Your task to perform on an android device: turn off translation in the chrome app Image 0: 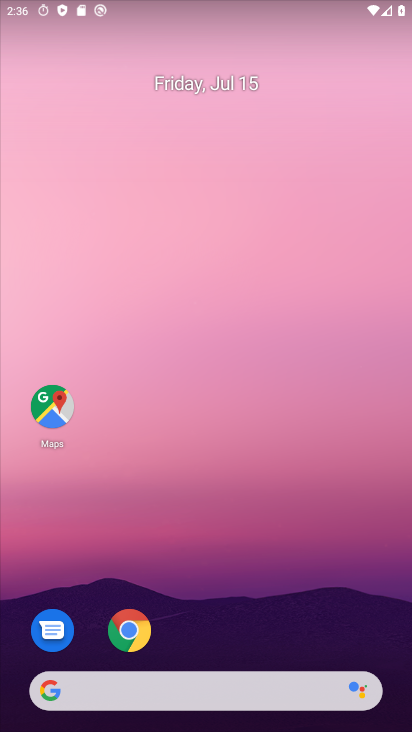
Step 0: click (121, 629)
Your task to perform on an android device: turn off translation in the chrome app Image 1: 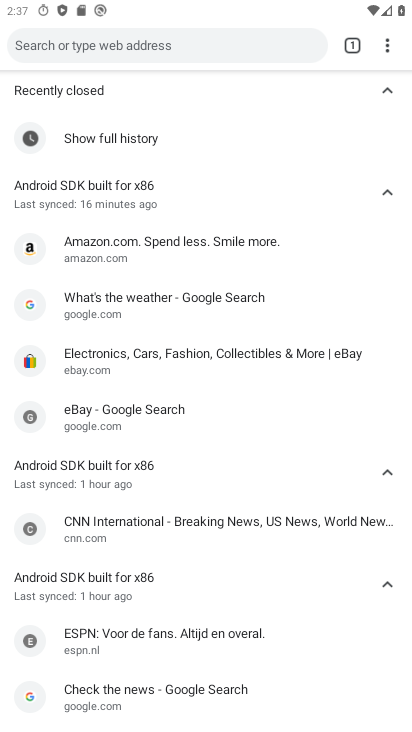
Step 1: click (389, 44)
Your task to perform on an android device: turn off translation in the chrome app Image 2: 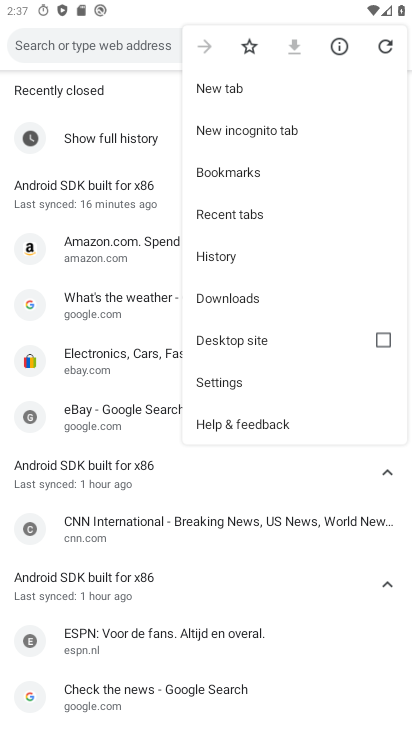
Step 2: click (246, 373)
Your task to perform on an android device: turn off translation in the chrome app Image 3: 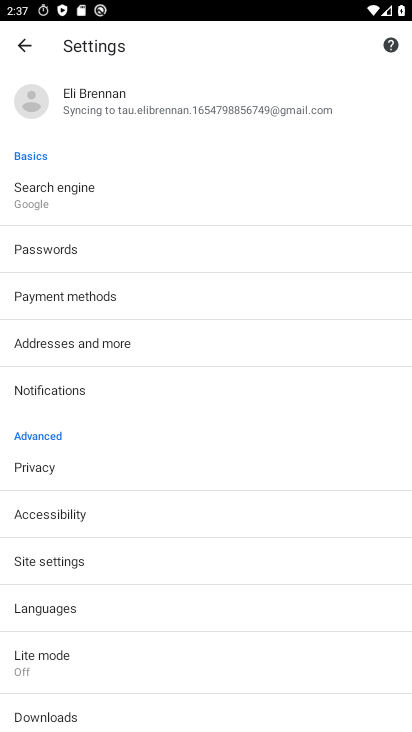
Step 3: click (138, 612)
Your task to perform on an android device: turn off translation in the chrome app Image 4: 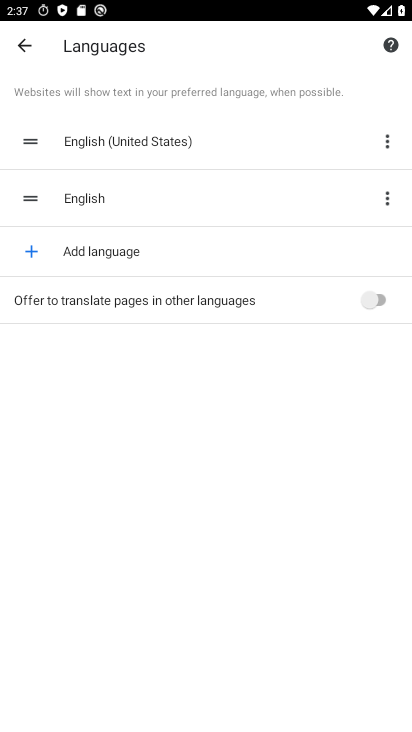
Step 4: task complete